Your task to perform on an android device: Clear all items from cart on ebay.com. Add "razer blade" to the cart on ebay.com, then select checkout. Image 0: 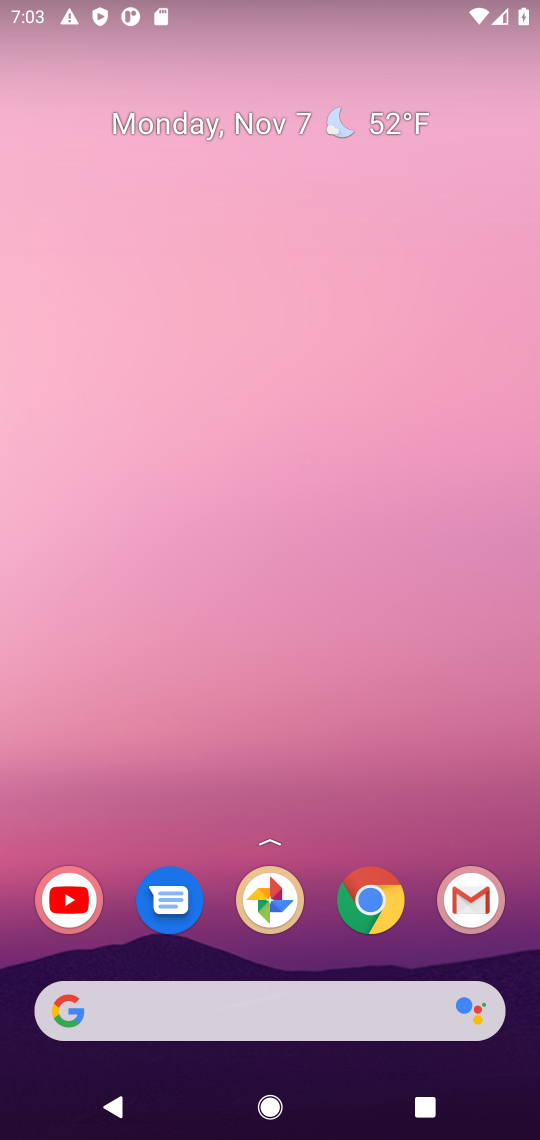
Step 0: click (374, 921)
Your task to perform on an android device: Clear all items from cart on ebay.com. Add "razer blade" to the cart on ebay.com, then select checkout. Image 1: 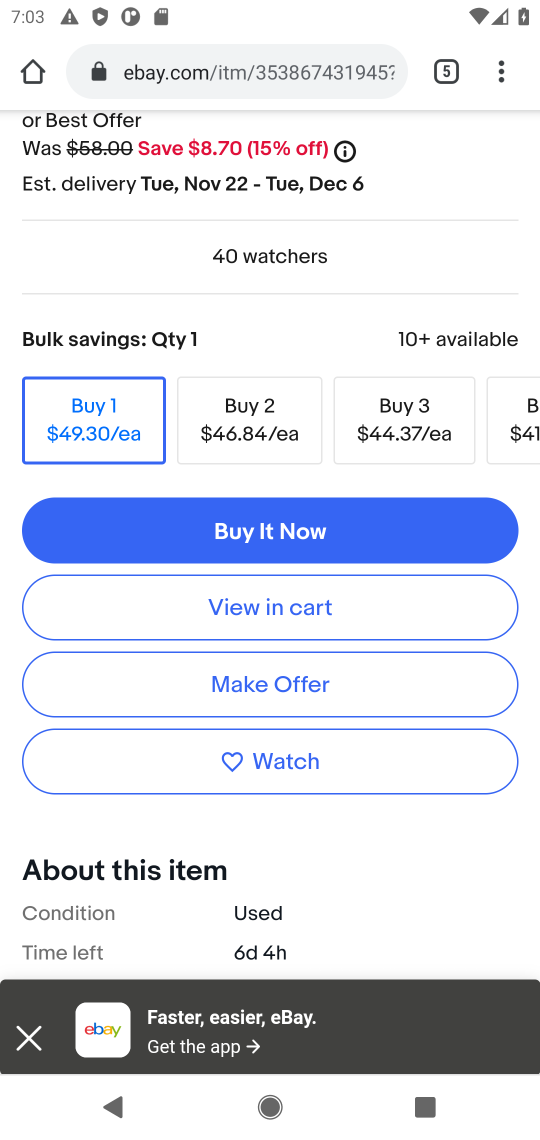
Step 1: click (438, 78)
Your task to perform on an android device: Clear all items from cart on ebay.com. Add "razer blade" to the cart on ebay.com, then select checkout. Image 2: 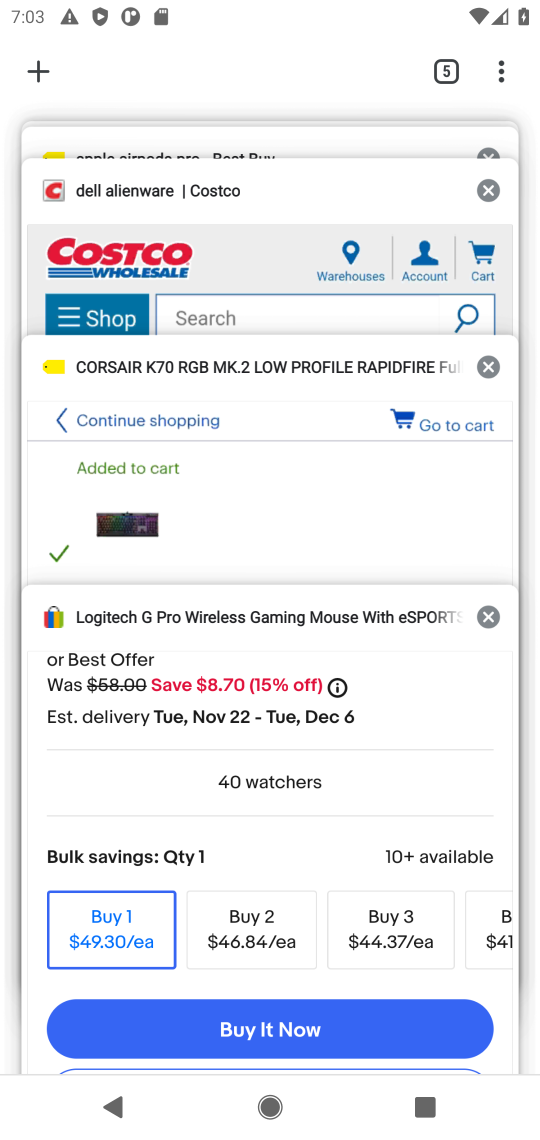
Step 2: drag from (220, 209) to (217, 928)
Your task to perform on an android device: Clear all items from cart on ebay.com. Add "razer blade" to the cart on ebay.com, then select checkout. Image 3: 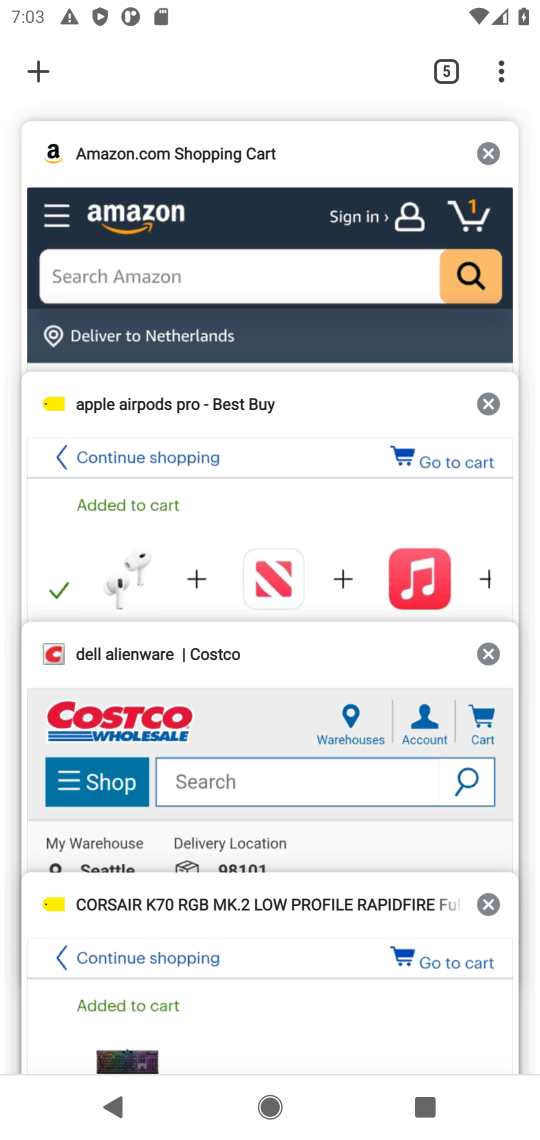
Step 3: drag from (185, 287) to (185, 875)
Your task to perform on an android device: Clear all items from cart on ebay.com. Add "razer blade" to the cart on ebay.com, then select checkout. Image 4: 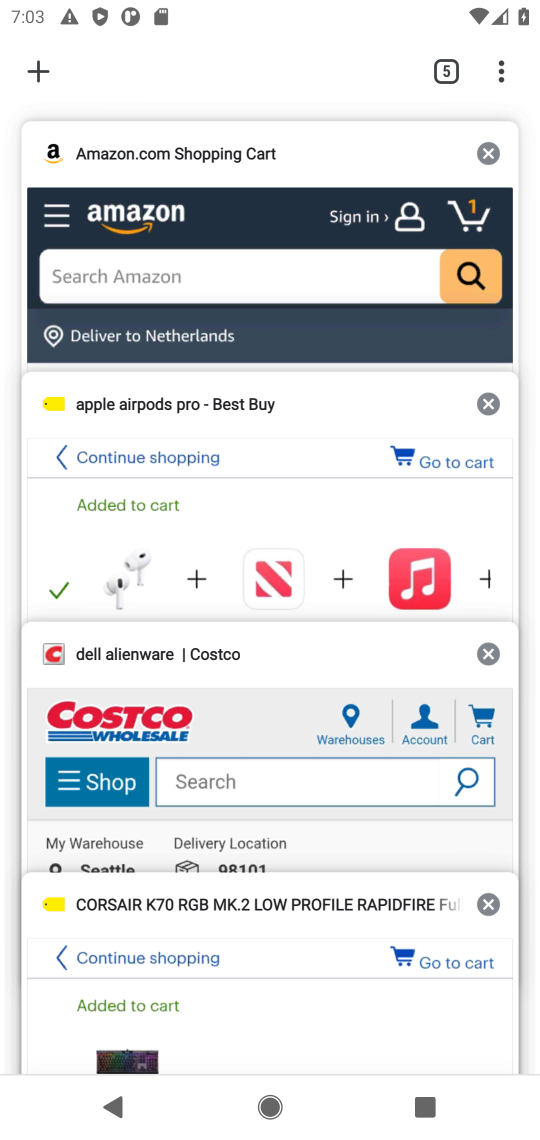
Step 4: click (28, 61)
Your task to perform on an android device: Clear all items from cart on ebay.com. Add "razer blade" to the cart on ebay.com, then select checkout. Image 5: 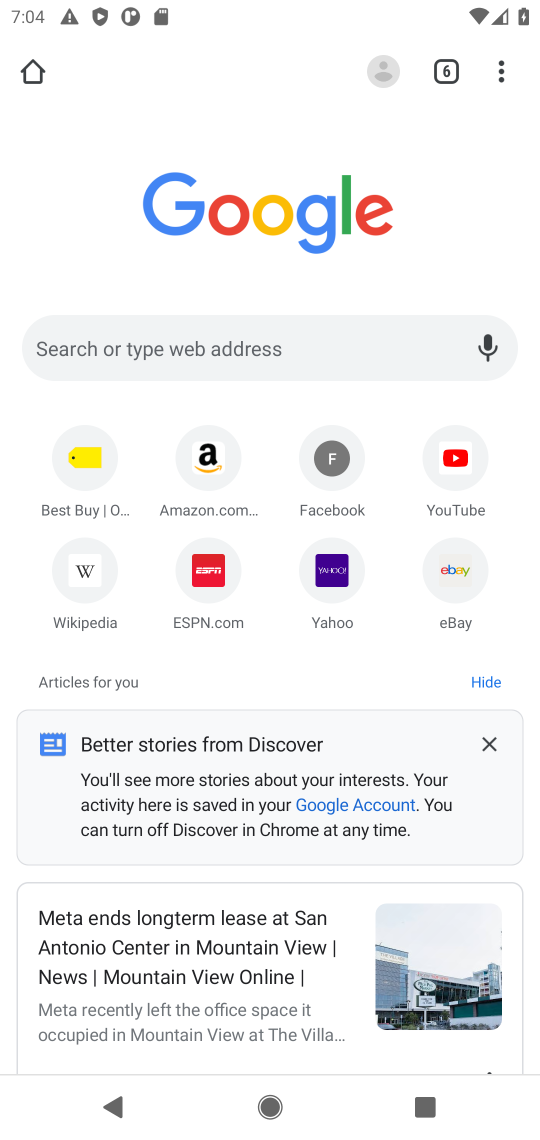
Step 5: click (452, 568)
Your task to perform on an android device: Clear all items from cart on ebay.com. Add "razer blade" to the cart on ebay.com, then select checkout. Image 6: 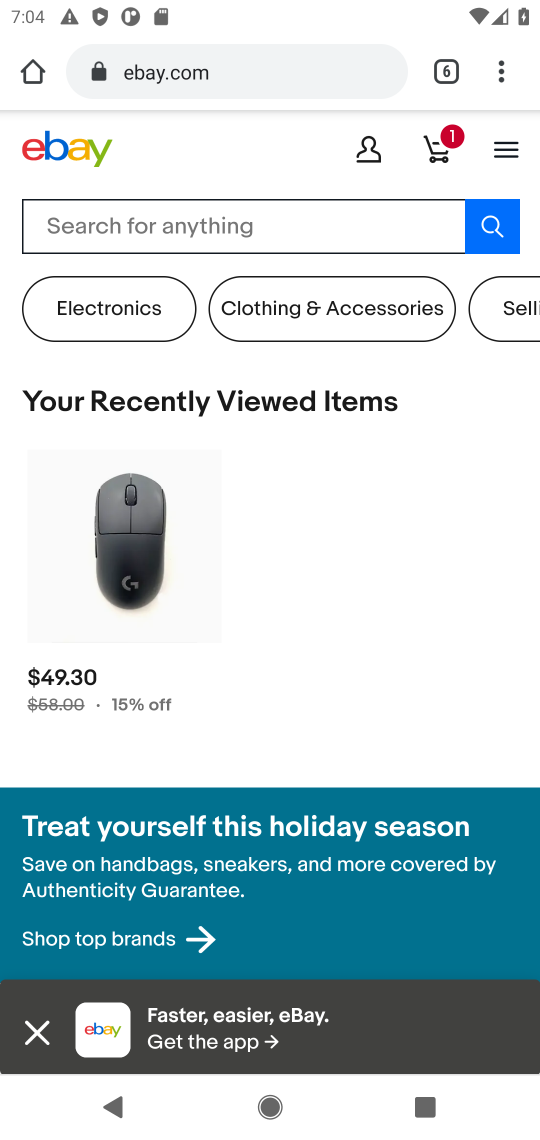
Step 6: click (219, 232)
Your task to perform on an android device: Clear all items from cart on ebay.com. Add "razer blade" to the cart on ebay.com, then select checkout. Image 7: 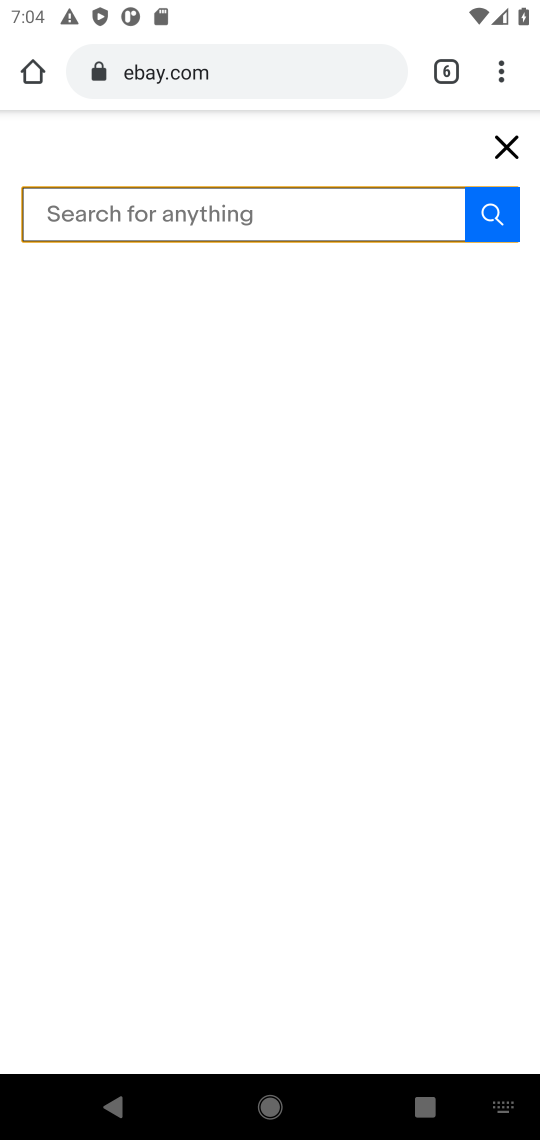
Step 7: click (275, 211)
Your task to perform on an android device: Clear all items from cart on ebay.com. Add "razer blade" to the cart on ebay.com, then select checkout. Image 8: 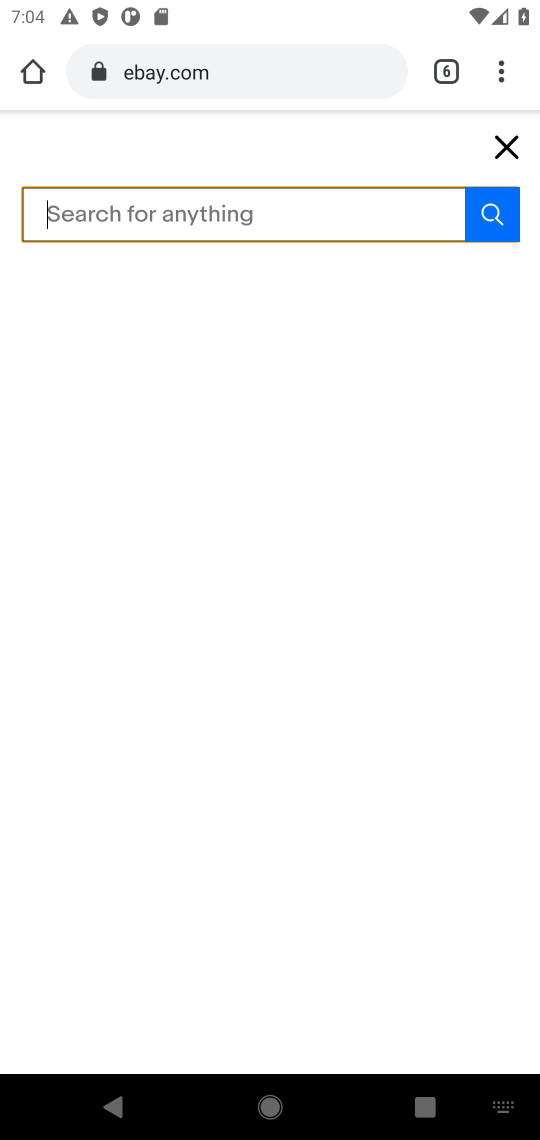
Step 8: type "razer blade"
Your task to perform on an android device: Clear all items from cart on ebay.com. Add "razer blade" to the cart on ebay.com, then select checkout. Image 9: 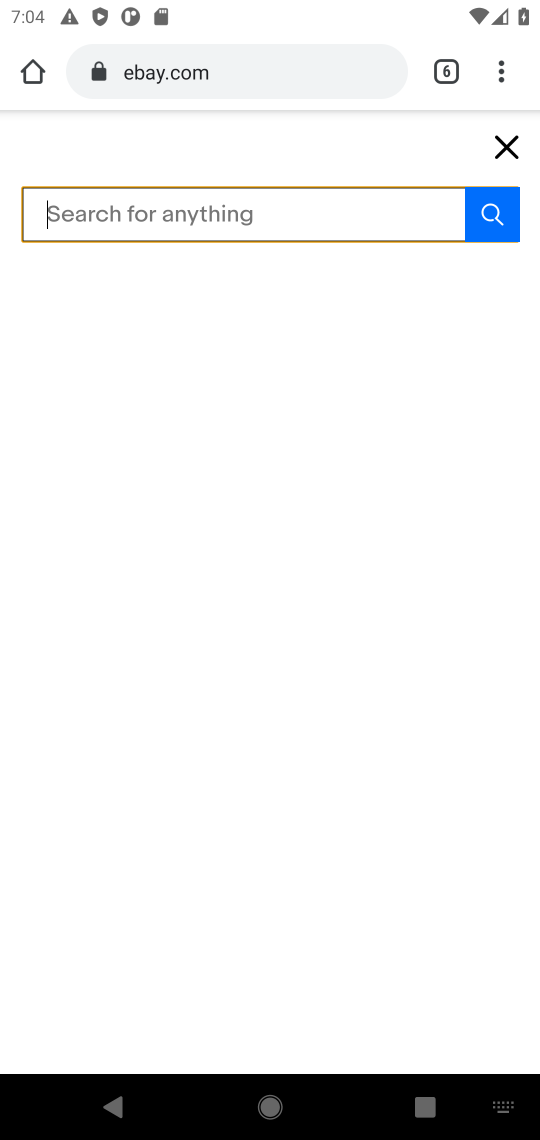
Step 9: click (179, 768)
Your task to perform on an android device: Clear all items from cart on ebay.com. Add "razer blade" to the cart on ebay.com, then select checkout. Image 10: 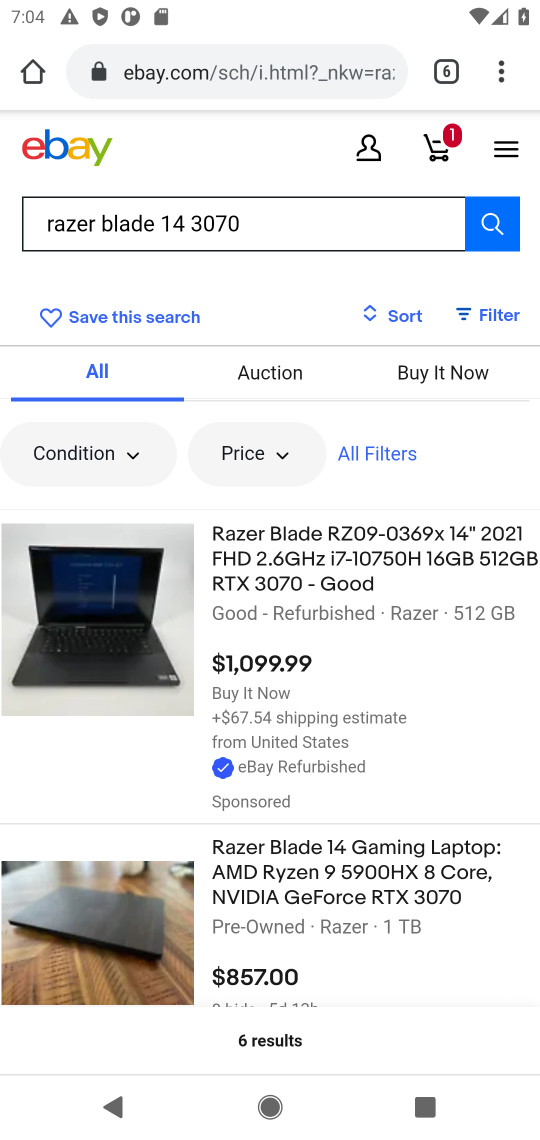
Step 10: click (312, 220)
Your task to perform on an android device: Clear all items from cart on ebay.com. Add "razer blade" to the cart on ebay.com, then select checkout. Image 11: 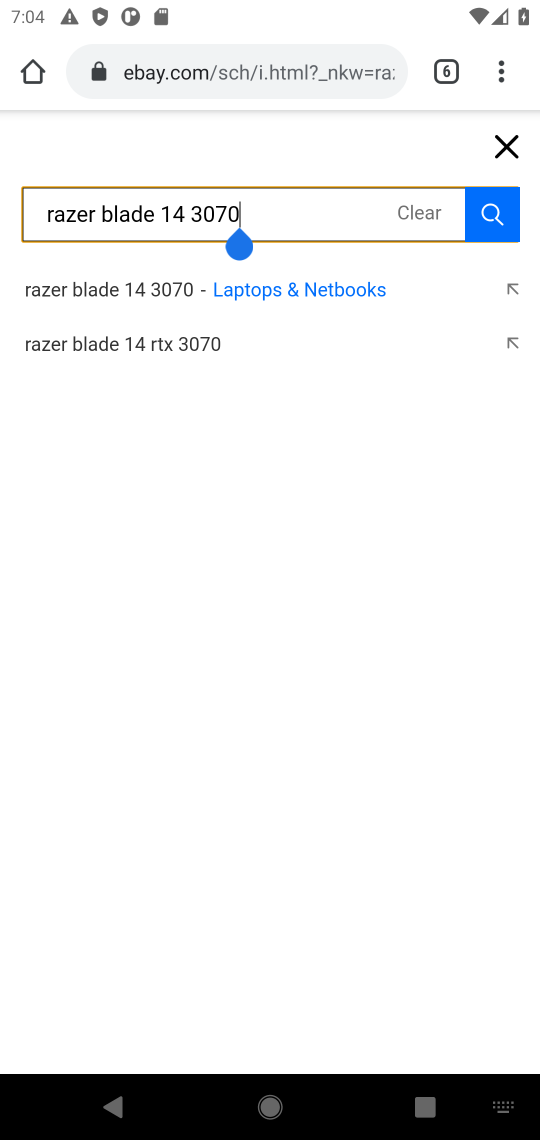
Step 11: click (430, 199)
Your task to perform on an android device: Clear all items from cart on ebay.com. Add "razer blade" to the cart on ebay.com, then select checkout. Image 12: 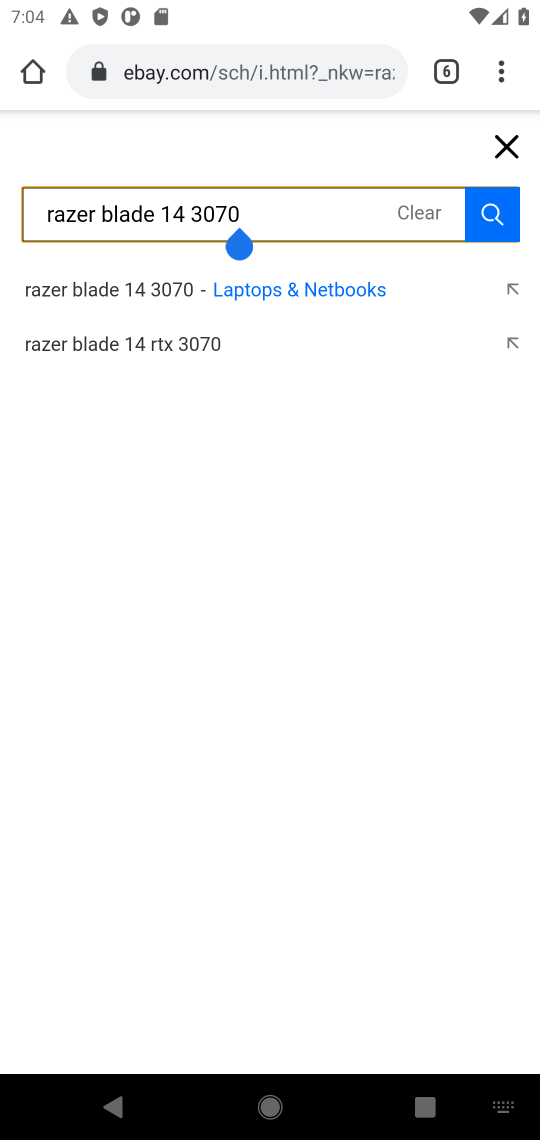
Step 12: click (430, 211)
Your task to perform on an android device: Clear all items from cart on ebay.com. Add "razer blade" to the cart on ebay.com, then select checkout. Image 13: 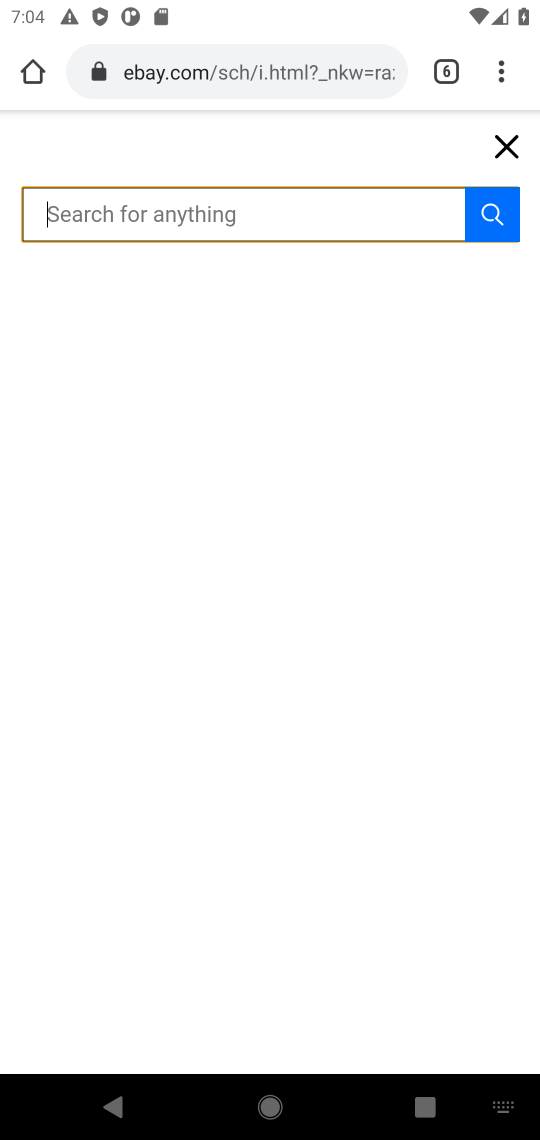
Step 13: type "razer blade"
Your task to perform on an android device: Clear all items from cart on ebay.com. Add "razer blade" to the cart on ebay.com, then select checkout. Image 14: 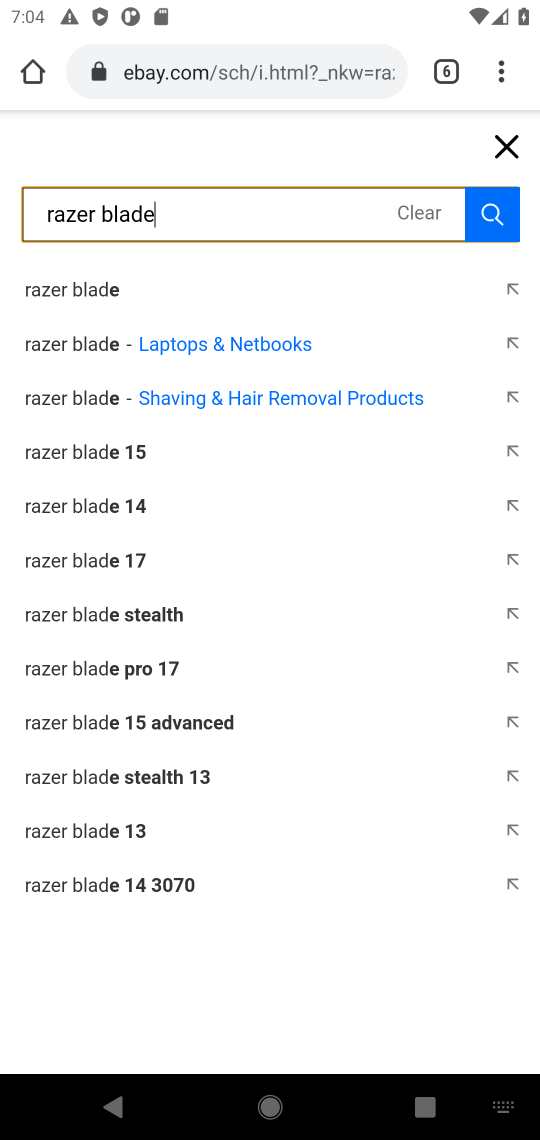
Step 14: click (137, 279)
Your task to perform on an android device: Clear all items from cart on ebay.com. Add "razer blade" to the cart on ebay.com, then select checkout. Image 15: 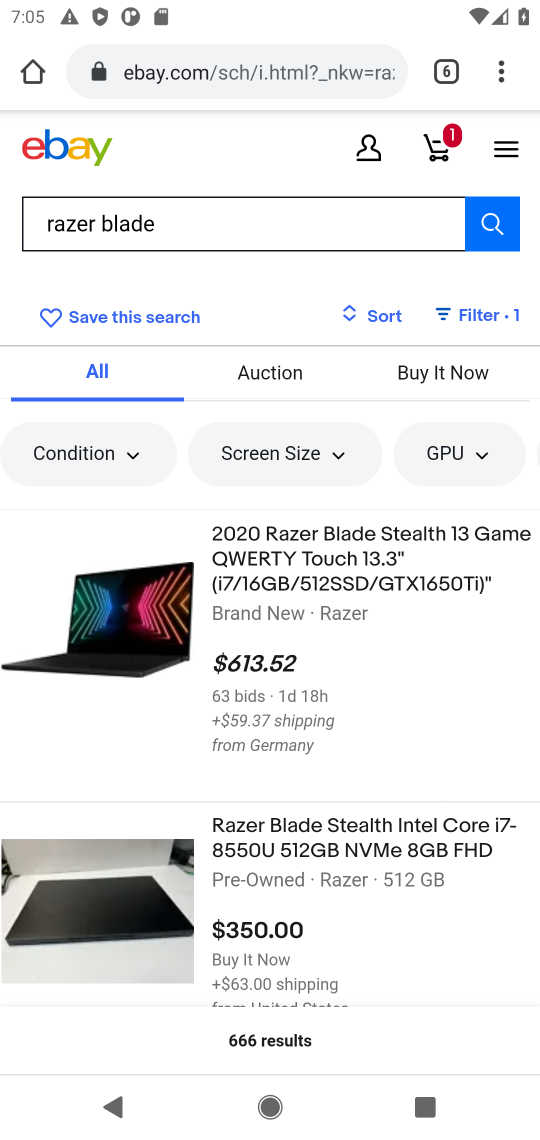
Step 15: click (292, 570)
Your task to perform on an android device: Clear all items from cart on ebay.com. Add "razer blade" to the cart on ebay.com, then select checkout. Image 16: 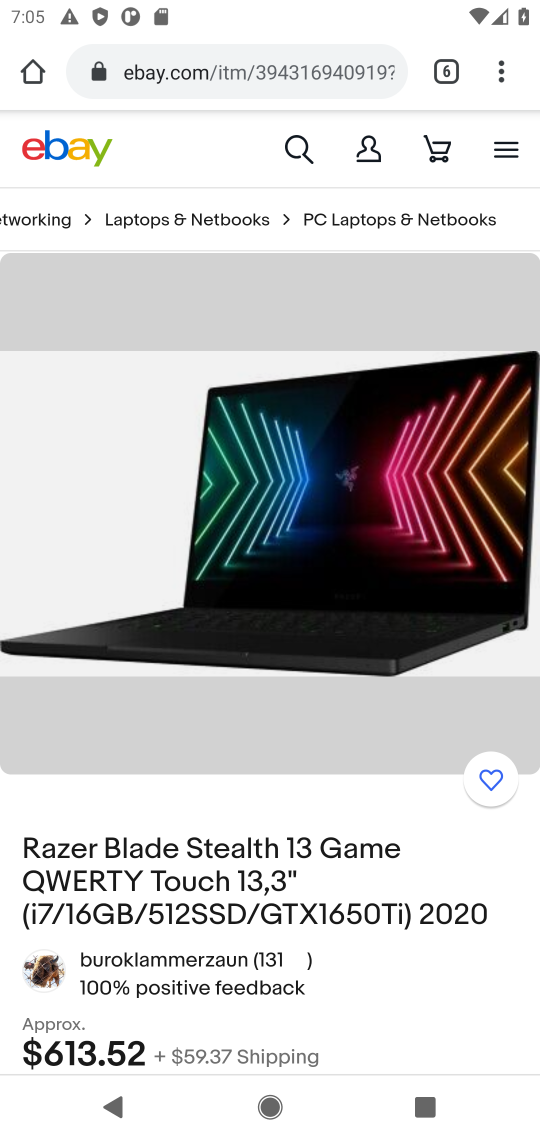
Step 16: task complete